Your task to perform on an android device: change alarm snooze length Image 0: 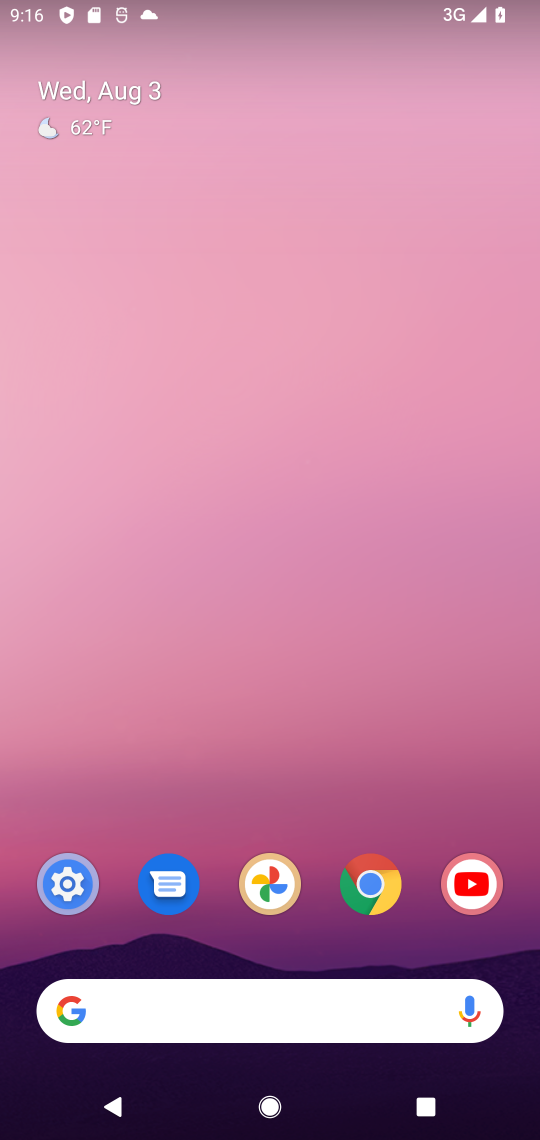
Step 0: drag from (209, 883) to (287, 325)
Your task to perform on an android device: change alarm snooze length Image 1: 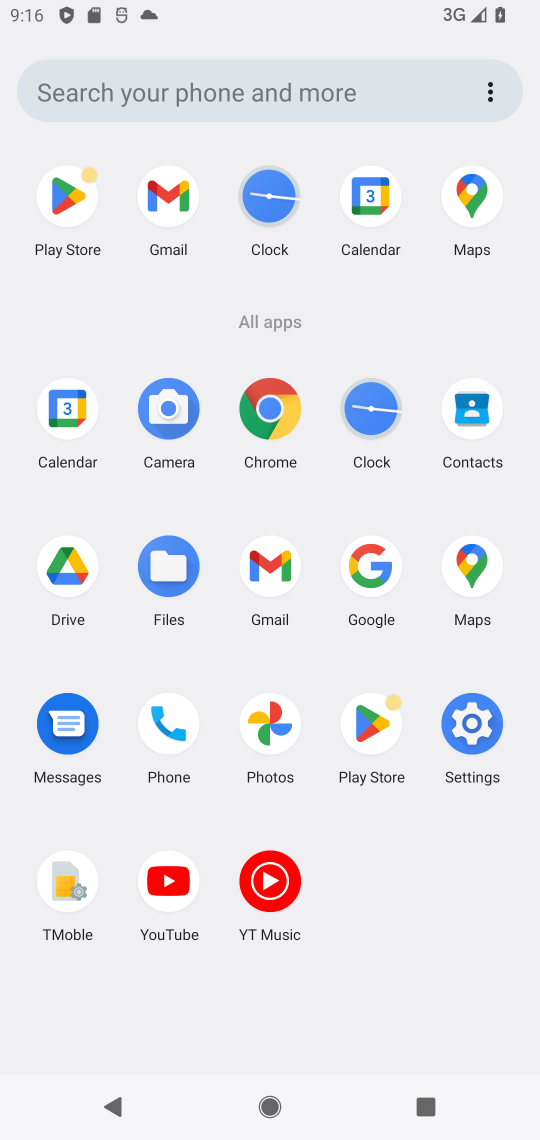
Step 1: click (378, 411)
Your task to perform on an android device: change alarm snooze length Image 2: 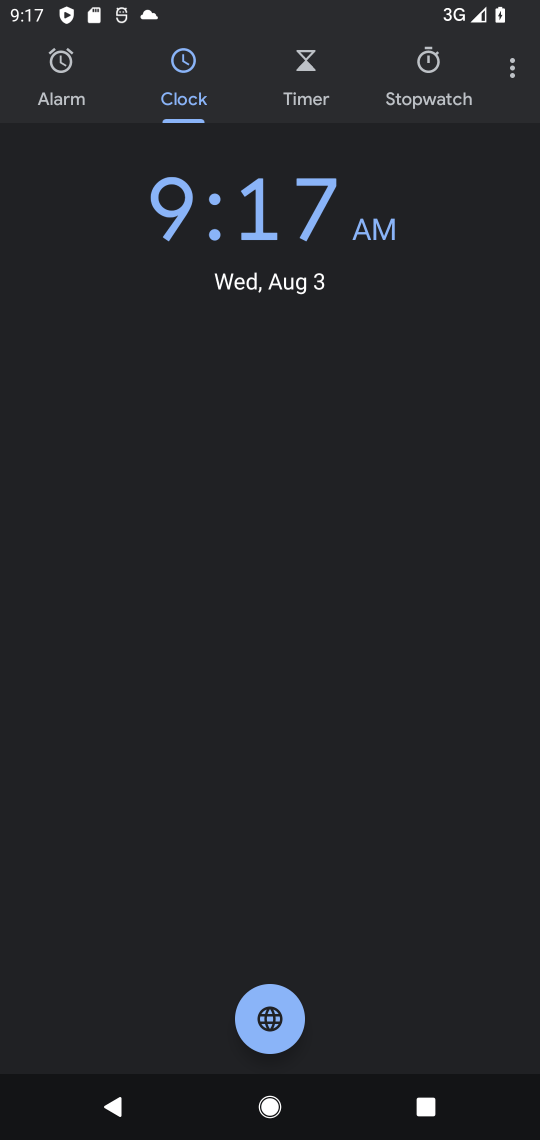
Step 2: click (513, 64)
Your task to perform on an android device: change alarm snooze length Image 3: 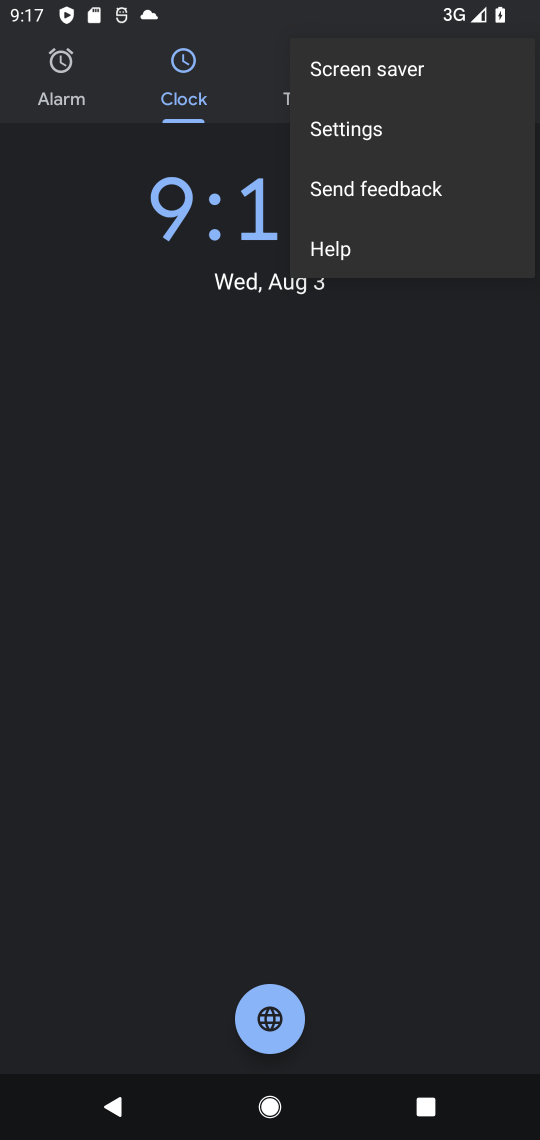
Step 3: click (386, 134)
Your task to perform on an android device: change alarm snooze length Image 4: 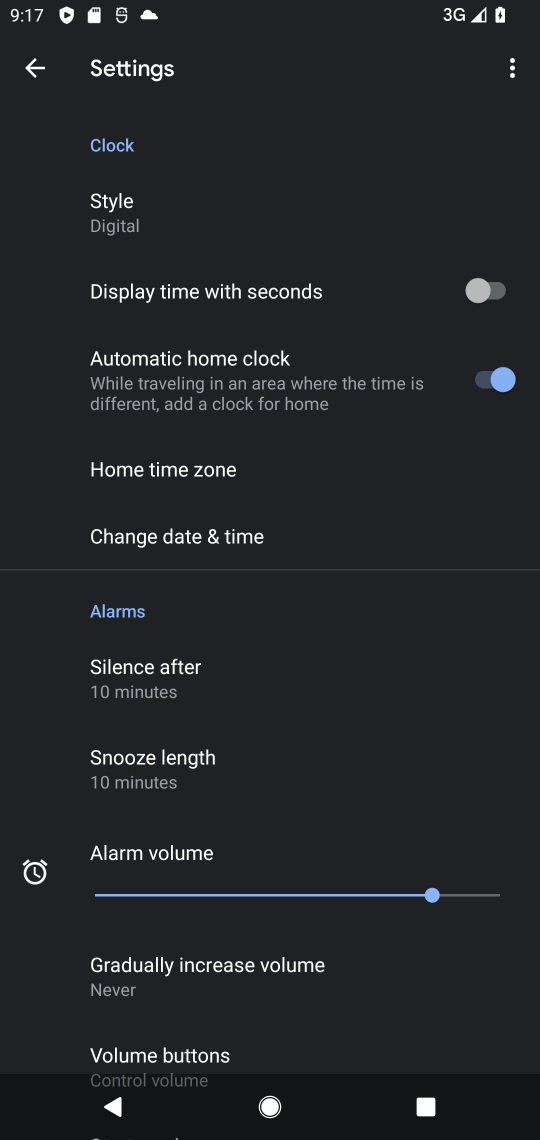
Step 4: click (202, 769)
Your task to perform on an android device: change alarm snooze length Image 5: 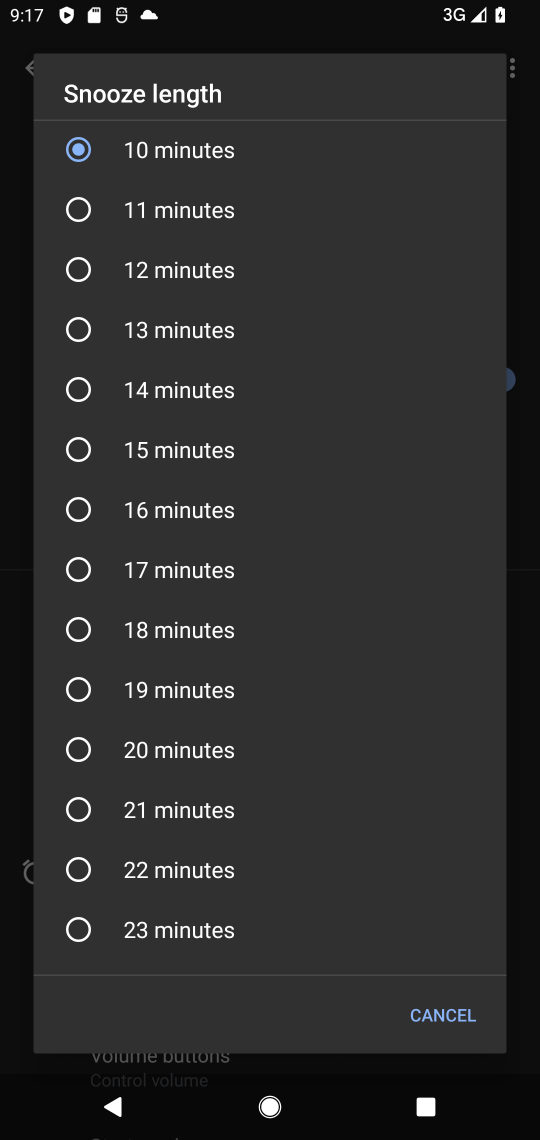
Step 5: drag from (223, 220) to (288, 882)
Your task to perform on an android device: change alarm snooze length Image 6: 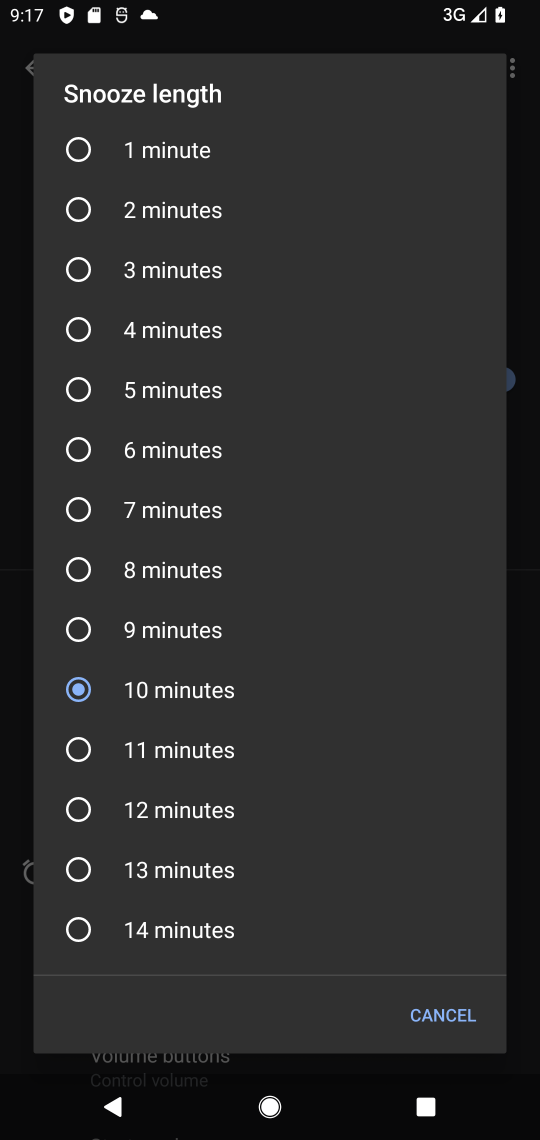
Step 6: click (150, 299)
Your task to perform on an android device: change alarm snooze length Image 7: 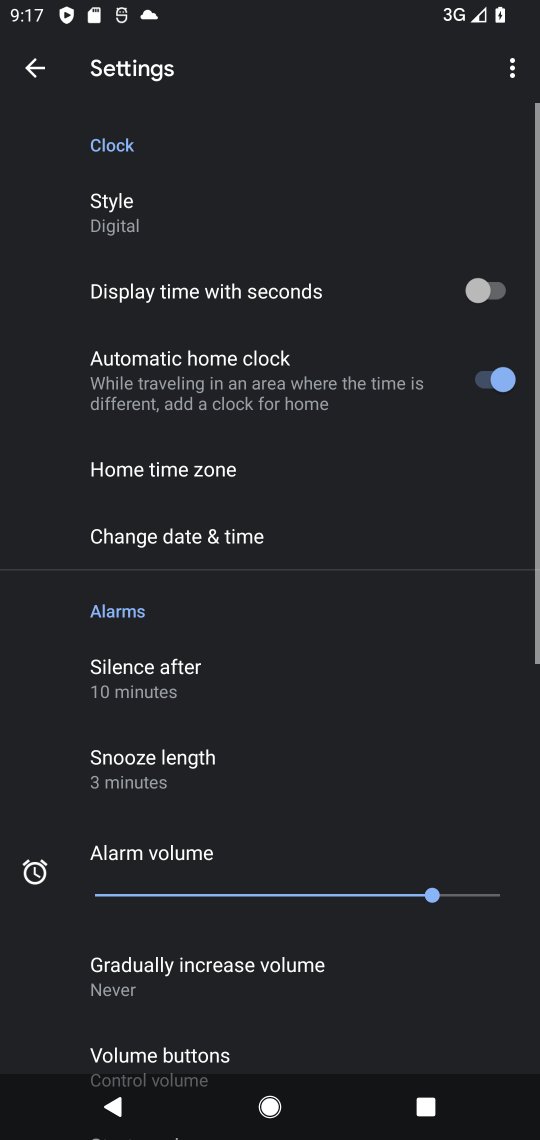
Step 7: task complete